Your task to perform on an android device: add a contact in the contacts app Image 0: 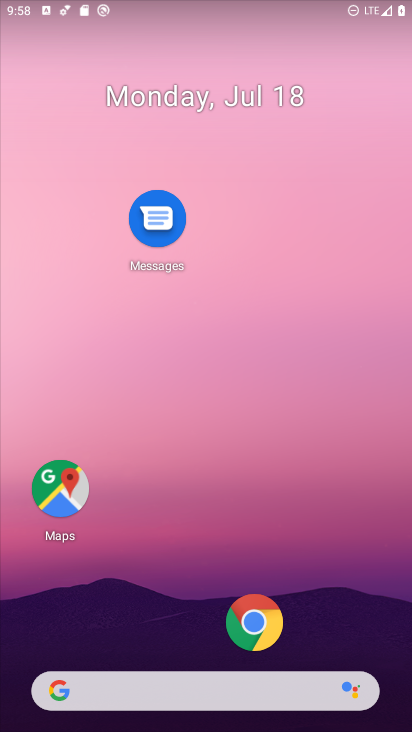
Step 0: drag from (287, 676) to (325, 169)
Your task to perform on an android device: add a contact in the contacts app Image 1: 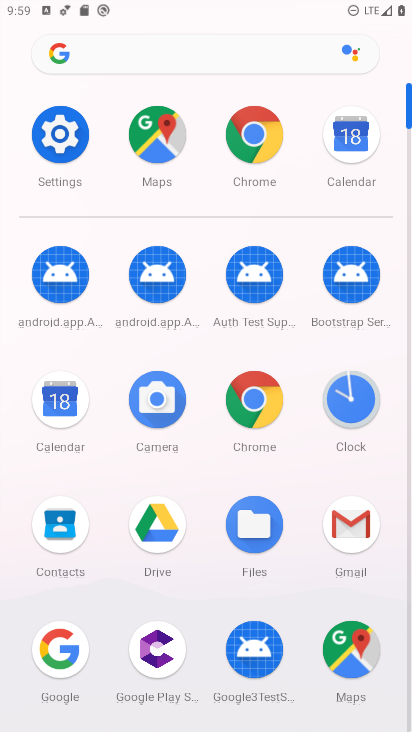
Step 1: click (59, 537)
Your task to perform on an android device: add a contact in the contacts app Image 2: 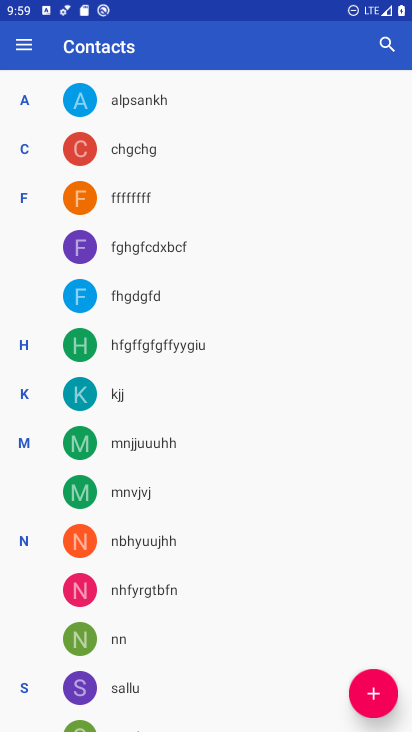
Step 2: click (366, 691)
Your task to perform on an android device: add a contact in the contacts app Image 3: 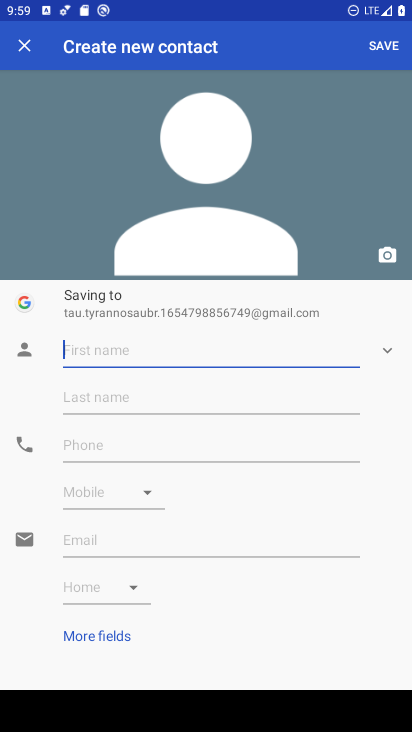
Step 3: type "kujyhrtdszxc"
Your task to perform on an android device: add a contact in the contacts app Image 4: 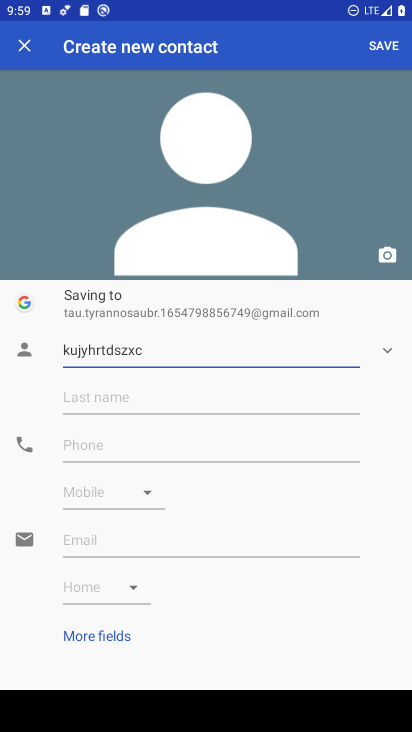
Step 4: click (231, 445)
Your task to perform on an android device: add a contact in the contacts app Image 5: 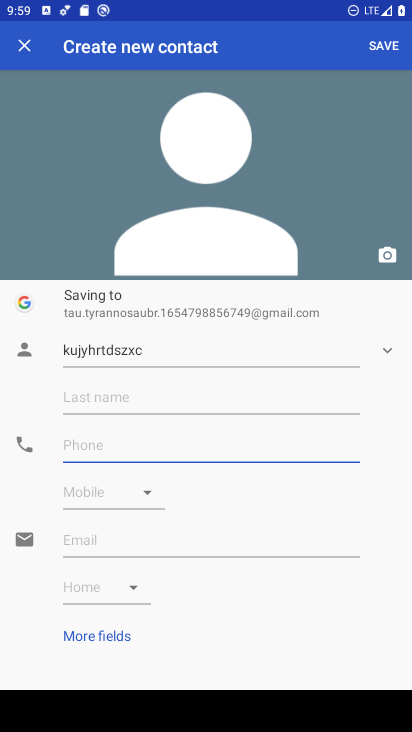
Step 5: type "9876543457"
Your task to perform on an android device: add a contact in the contacts app Image 6: 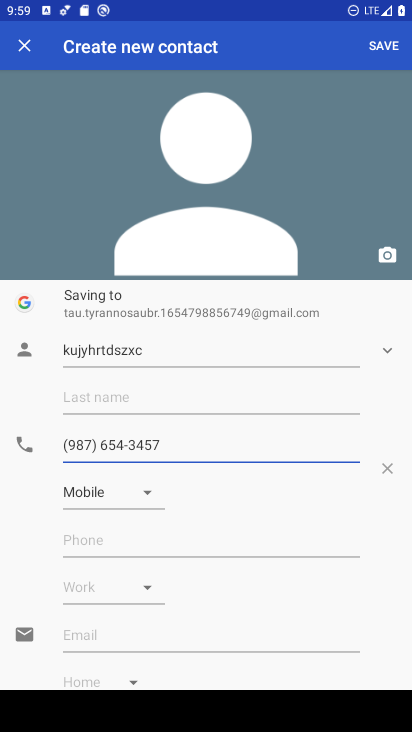
Step 6: click (390, 41)
Your task to perform on an android device: add a contact in the contacts app Image 7: 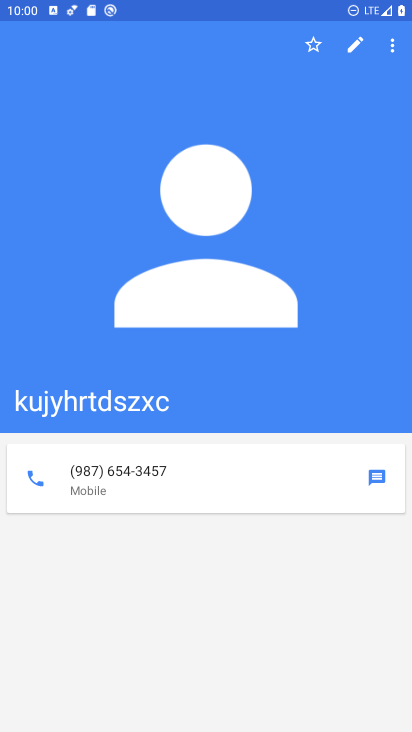
Step 7: task complete